Your task to perform on an android device: check the backup settings in the google photos Image 0: 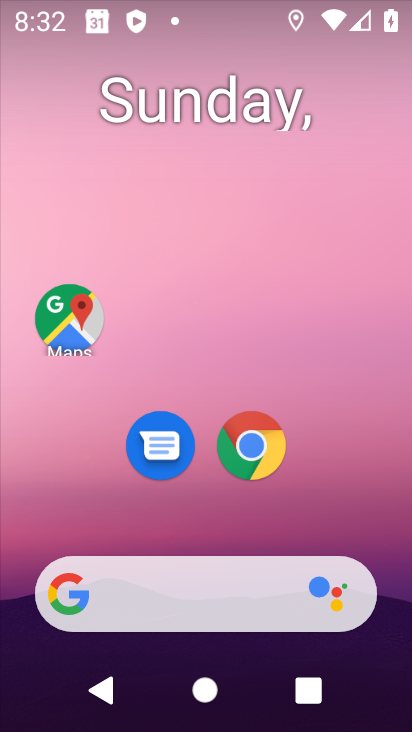
Step 0: drag from (330, 485) to (312, 59)
Your task to perform on an android device: check the backup settings in the google photos Image 1: 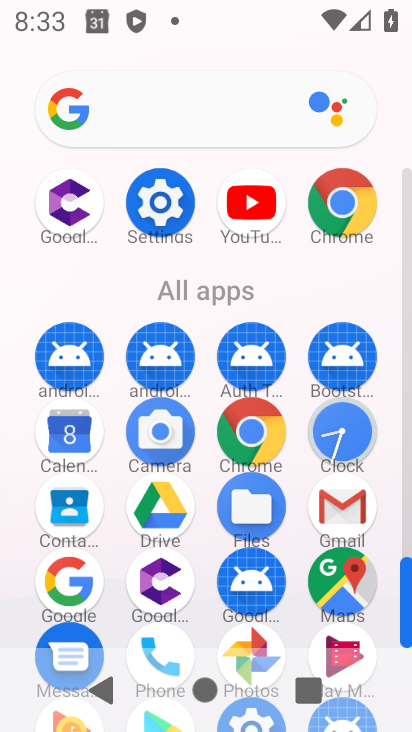
Step 1: drag from (293, 624) to (304, 304)
Your task to perform on an android device: check the backup settings in the google photos Image 2: 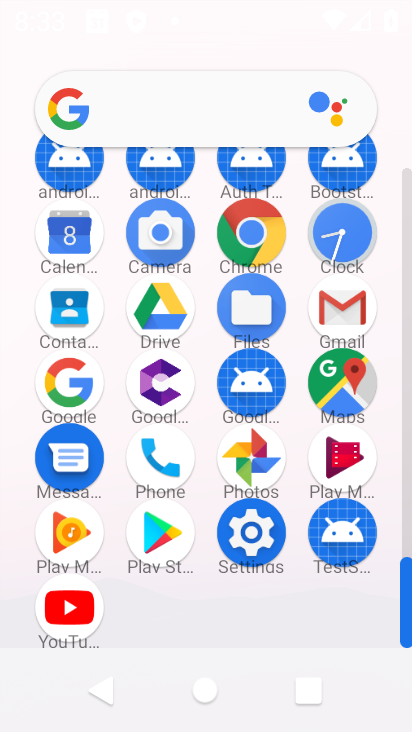
Step 2: click (258, 472)
Your task to perform on an android device: check the backup settings in the google photos Image 3: 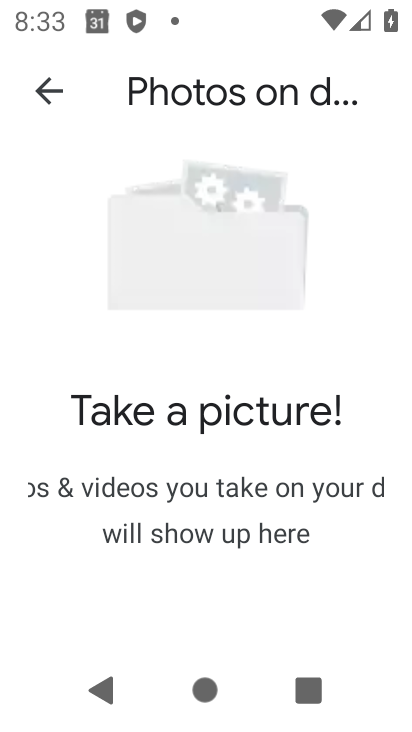
Step 3: click (45, 92)
Your task to perform on an android device: check the backup settings in the google photos Image 4: 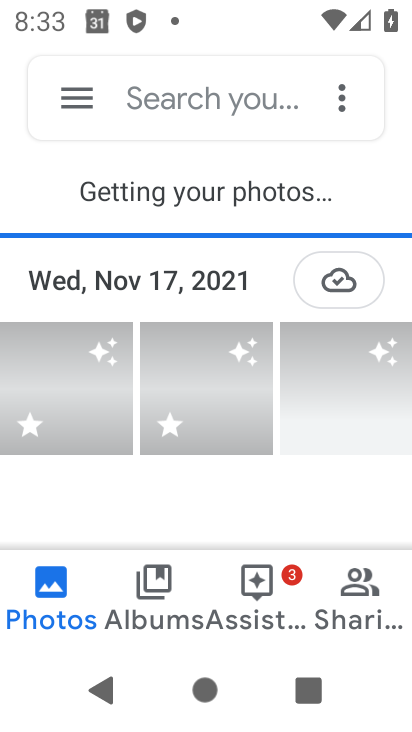
Step 4: click (75, 84)
Your task to perform on an android device: check the backup settings in the google photos Image 5: 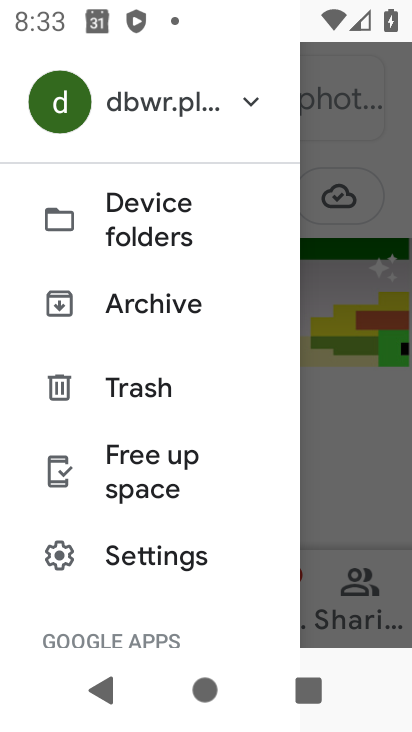
Step 5: drag from (219, 528) to (220, 119)
Your task to perform on an android device: check the backup settings in the google photos Image 6: 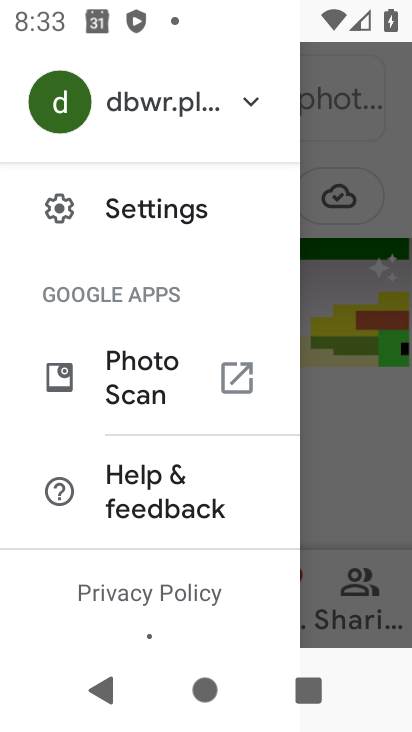
Step 6: click (156, 207)
Your task to perform on an android device: check the backup settings in the google photos Image 7: 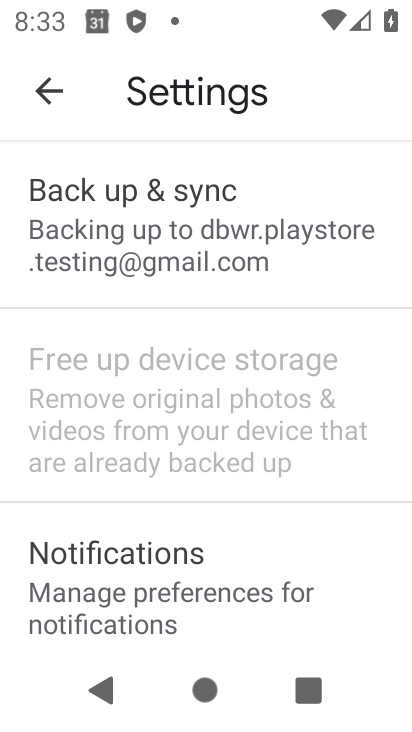
Step 7: click (242, 204)
Your task to perform on an android device: check the backup settings in the google photos Image 8: 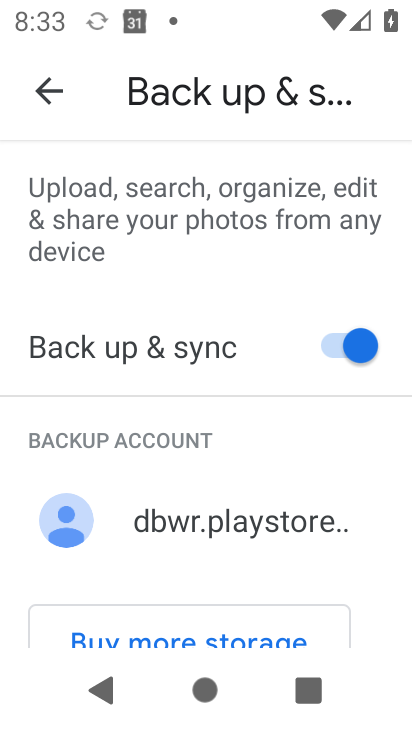
Step 8: task complete